Your task to perform on an android device: Open Chrome and go to the settings page Image 0: 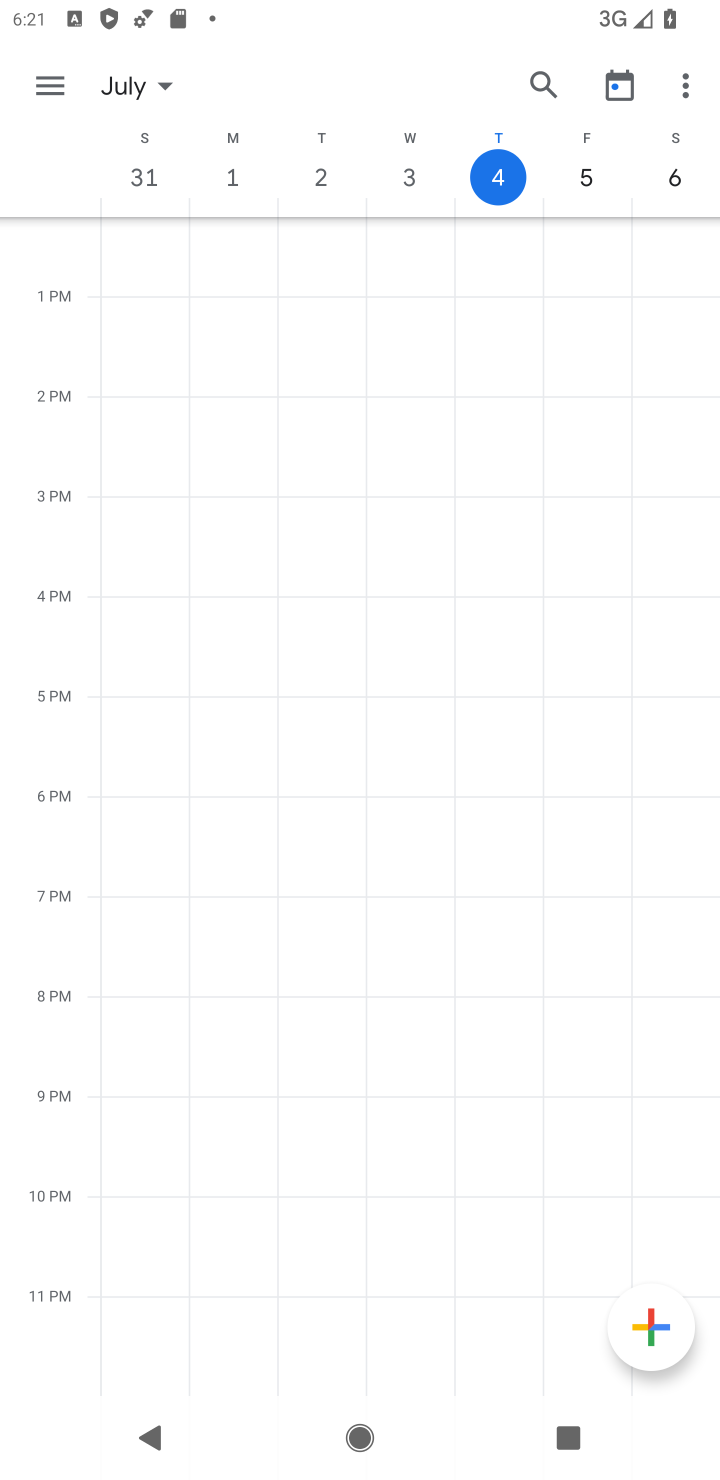
Step 0: press home button
Your task to perform on an android device: Open Chrome and go to the settings page Image 1: 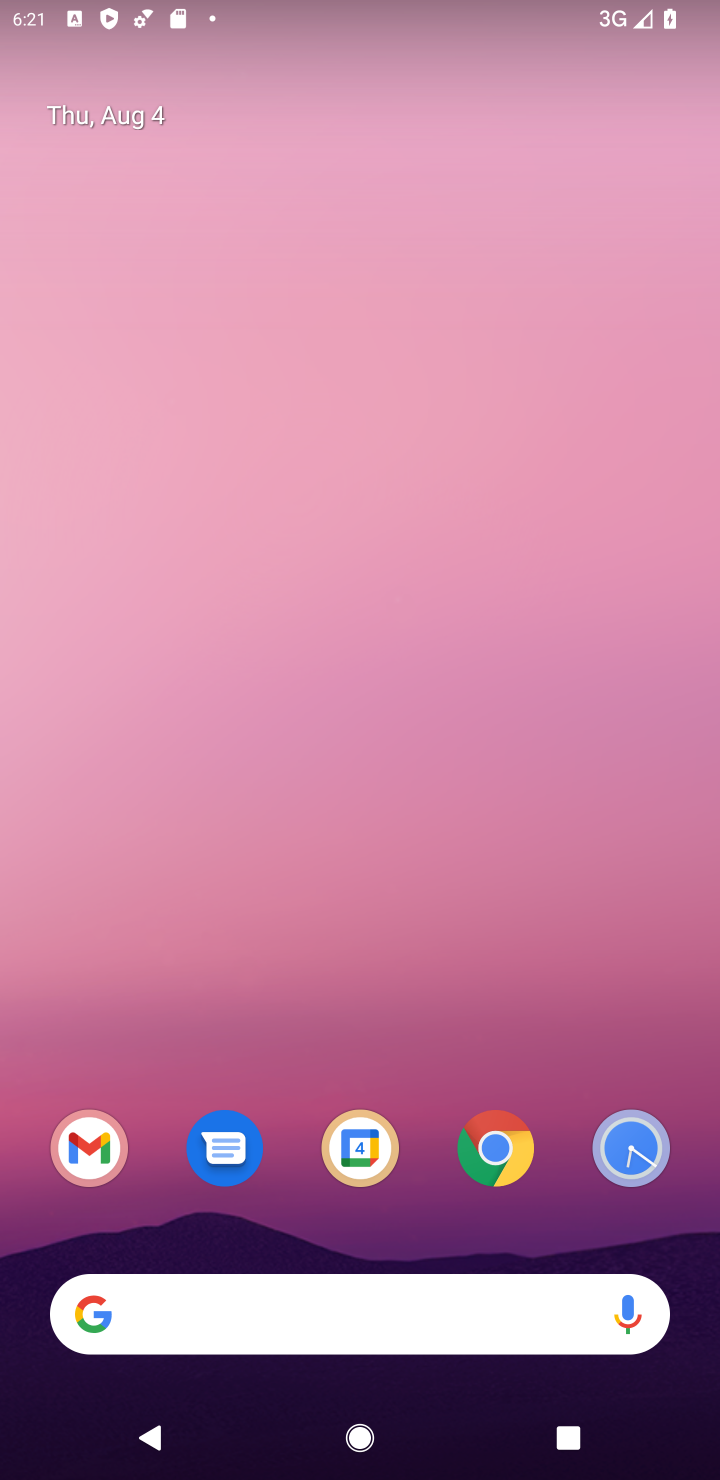
Step 1: click (496, 1152)
Your task to perform on an android device: Open Chrome and go to the settings page Image 2: 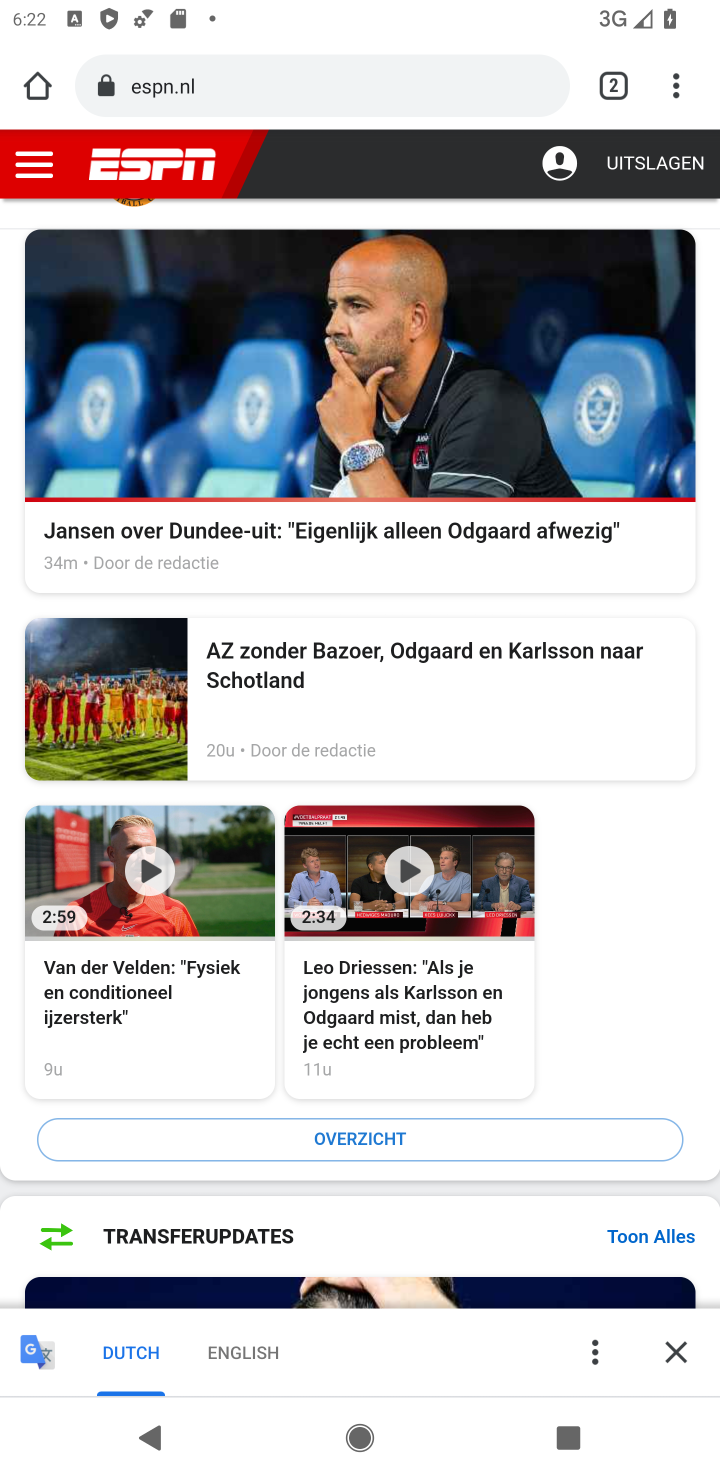
Step 2: click (670, 92)
Your task to perform on an android device: Open Chrome and go to the settings page Image 3: 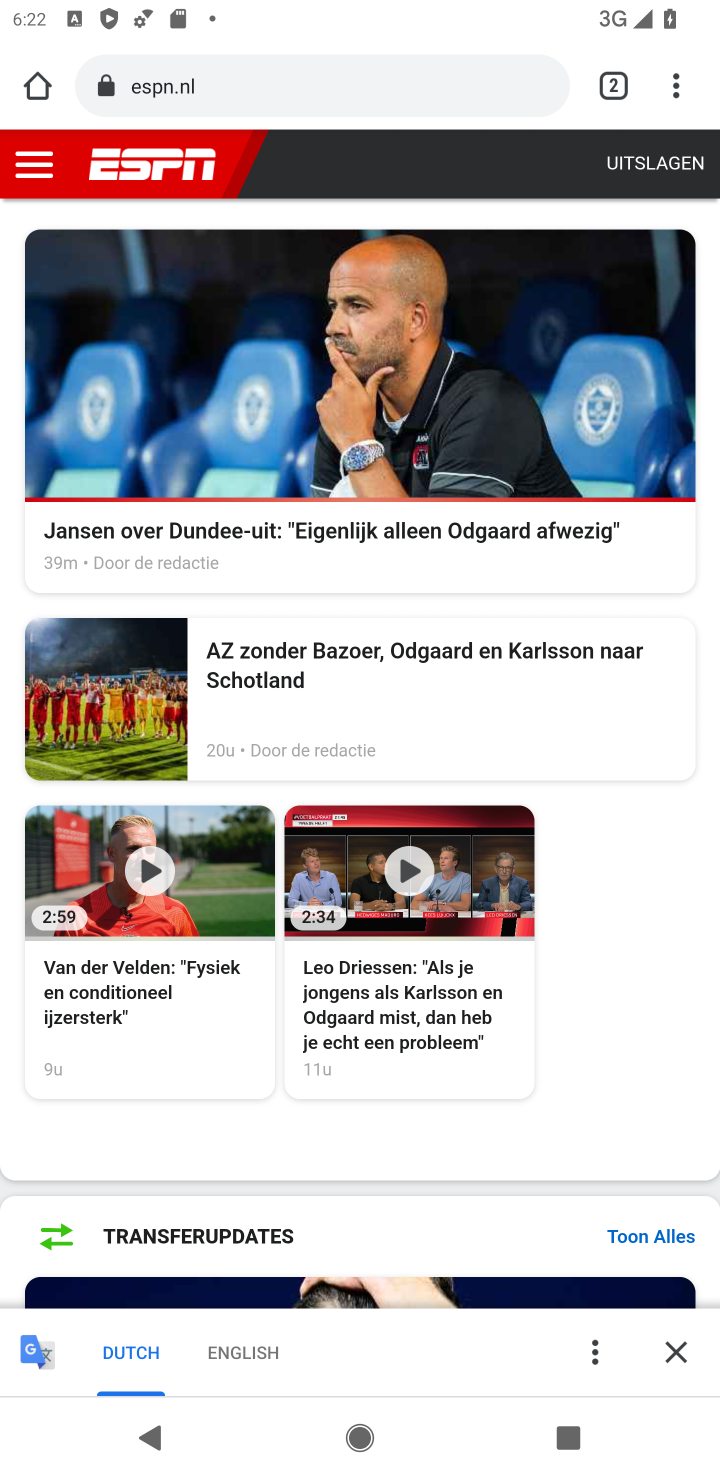
Step 3: click (670, 105)
Your task to perform on an android device: Open Chrome and go to the settings page Image 4: 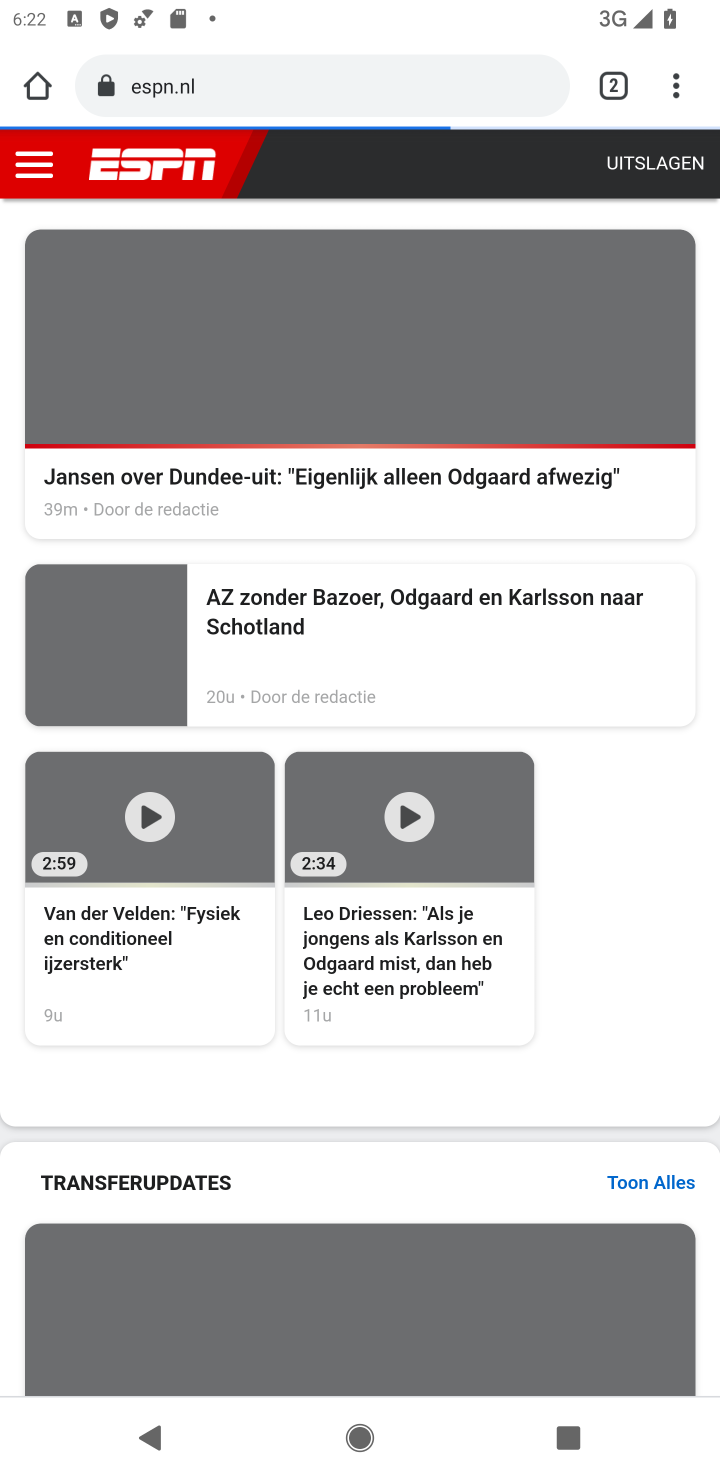
Step 4: click (669, 89)
Your task to perform on an android device: Open Chrome and go to the settings page Image 5: 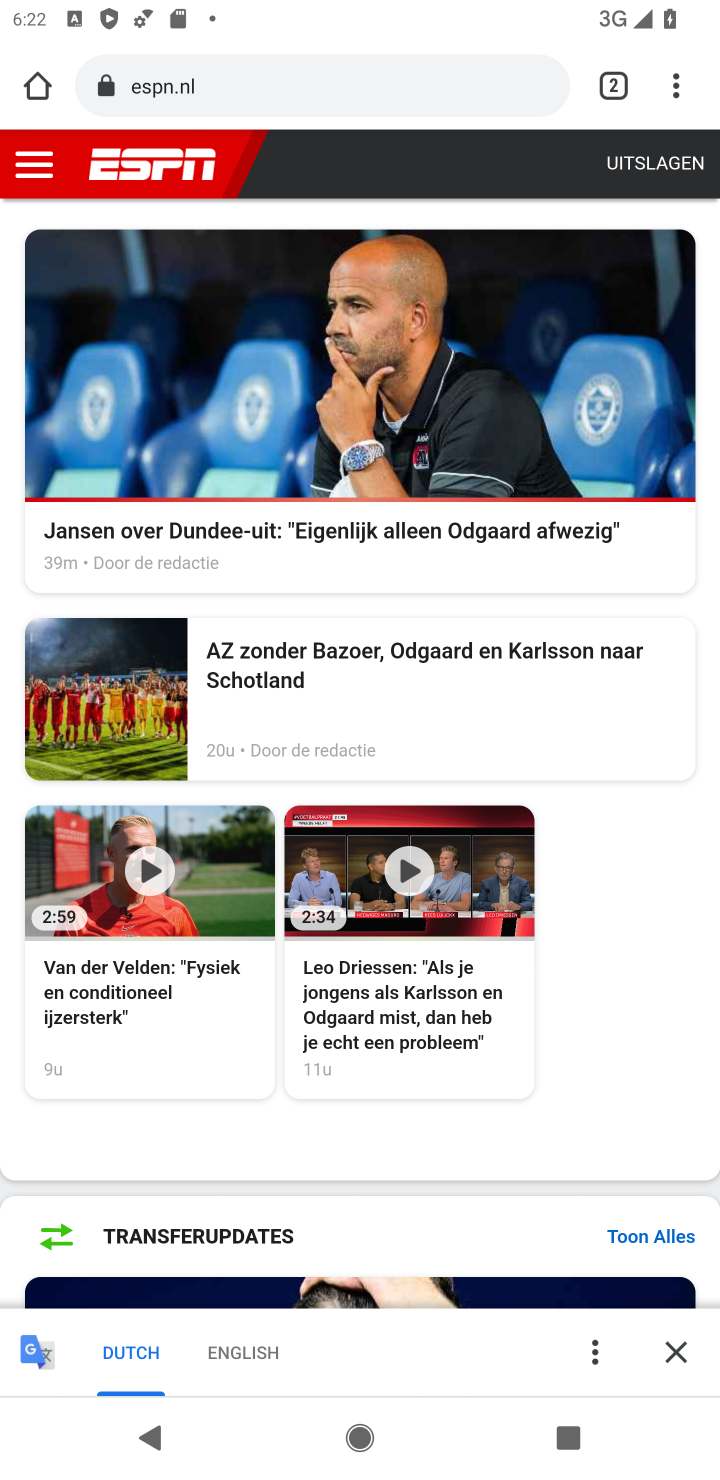
Step 5: task complete